Your task to perform on an android device: Open the phone app and click the voicemail tab. Image 0: 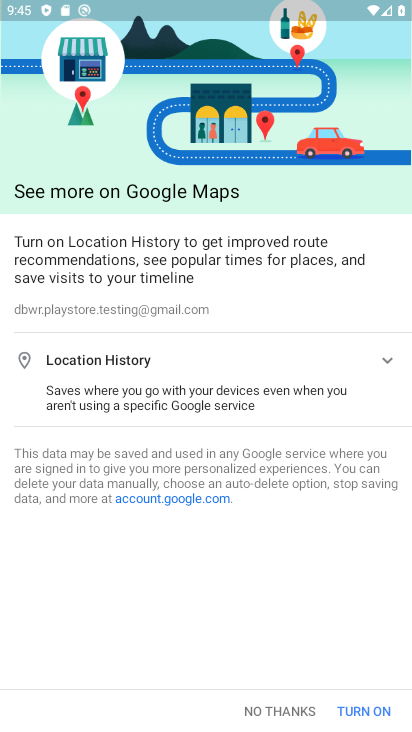
Step 0: press home button
Your task to perform on an android device: Open the phone app and click the voicemail tab. Image 1: 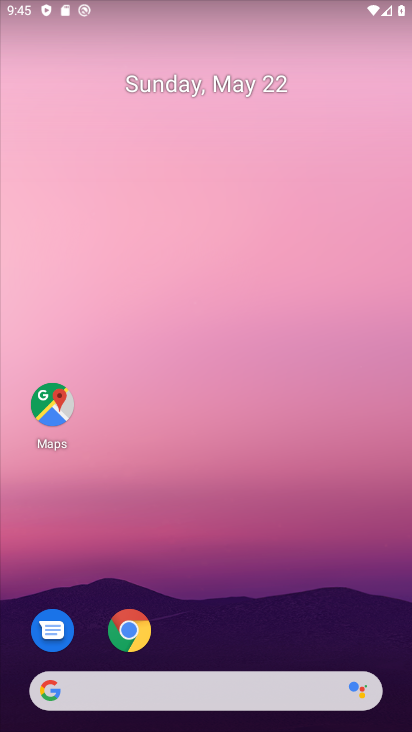
Step 1: drag from (404, 700) to (345, 95)
Your task to perform on an android device: Open the phone app and click the voicemail tab. Image 2: 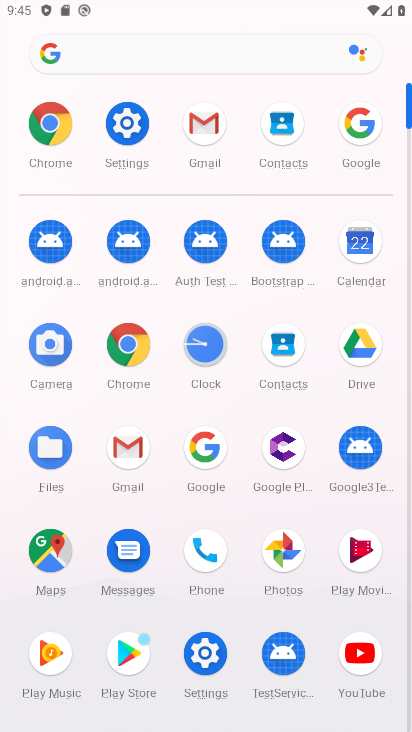
Step 2: click (215, 544)
Your task to perform on an android device: Open the phone app and click the voicemail tab. Image 3: 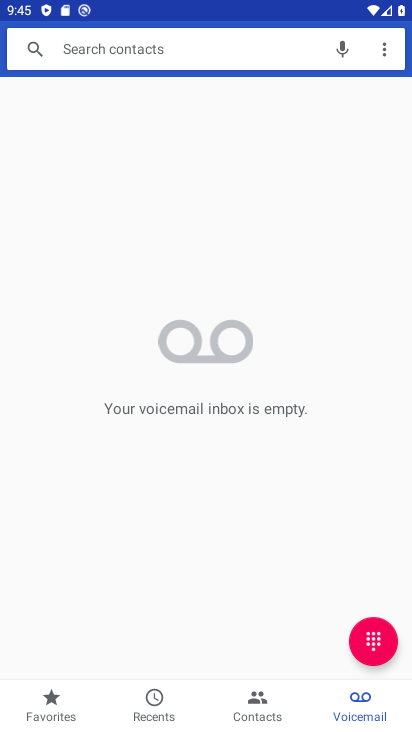
Step 3: click (366, 697)
Your task to perform on an android device: Open the phone app and click the voicemail tab. Image 4: 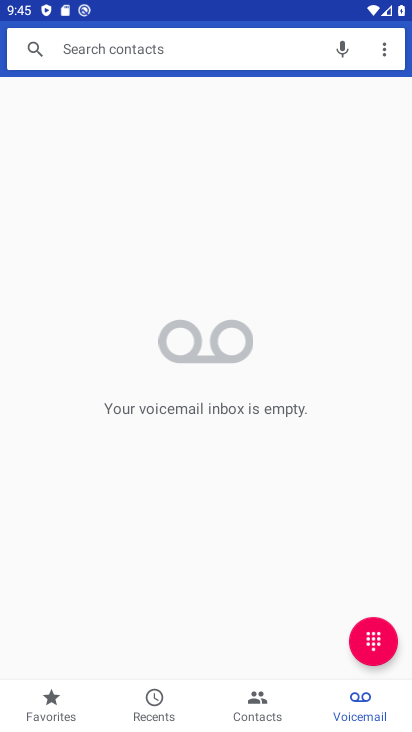
Step 4: task complete